Your task to perform on an android device: Empty the shopping cart on costco.com. Add duracell triple a to the cart on costco.com, then select checkout. Image 0: 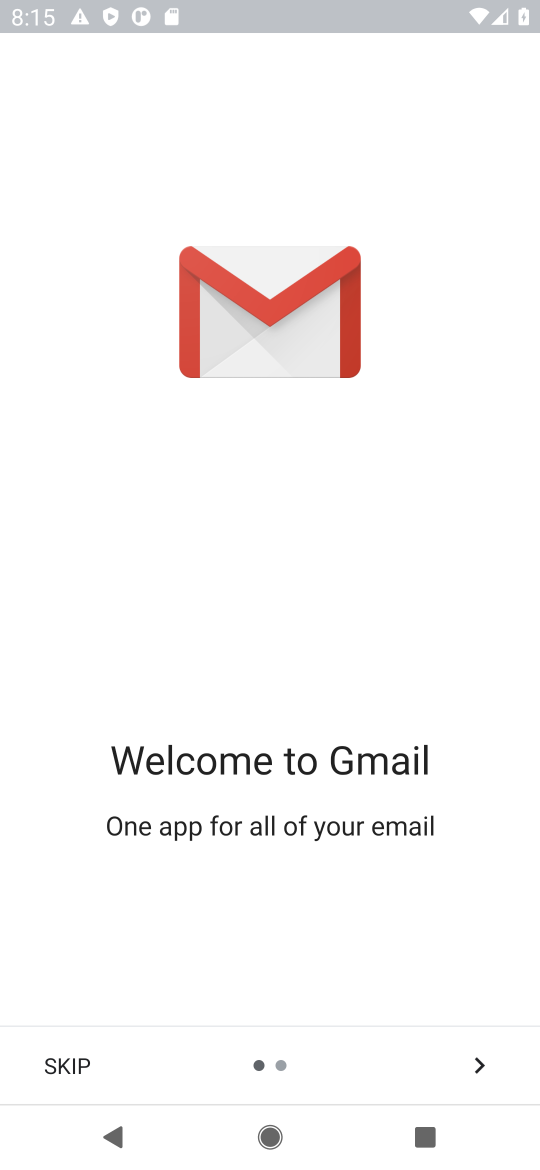
Step 0: press home button
Your task to perform on an android device: Empty the shopping cart on costco.com. Add duracell triple a to the cart on costco.com, then select checkout. Image 1: 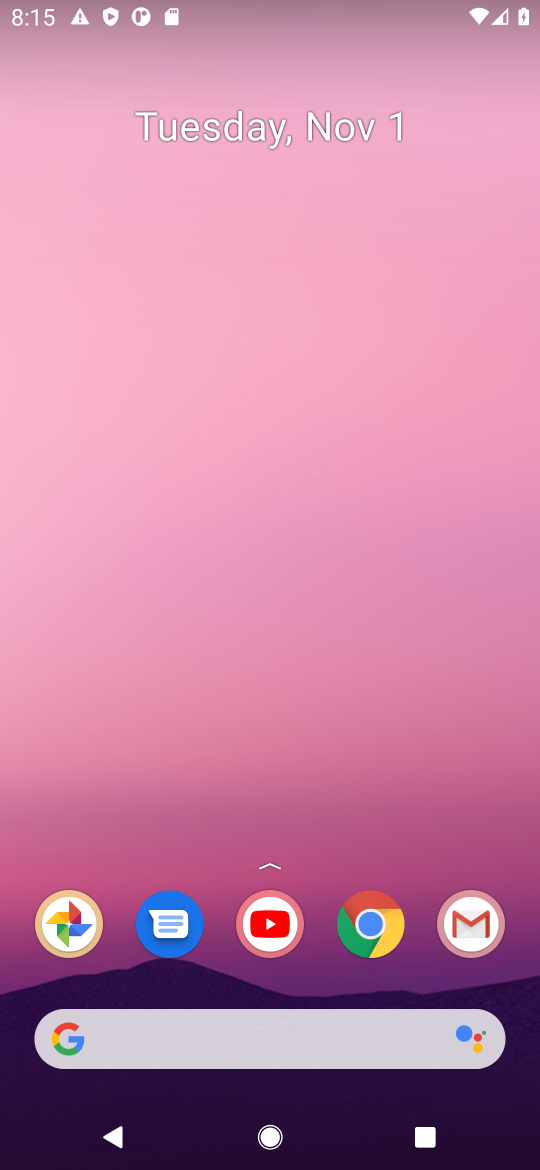
Step 1: click (101, 1035)
Your task to perform on an android device: Empty the shopping cart on costco.com. Add duracell triple a to the cart on costco.com, then select checkout. Image 2: 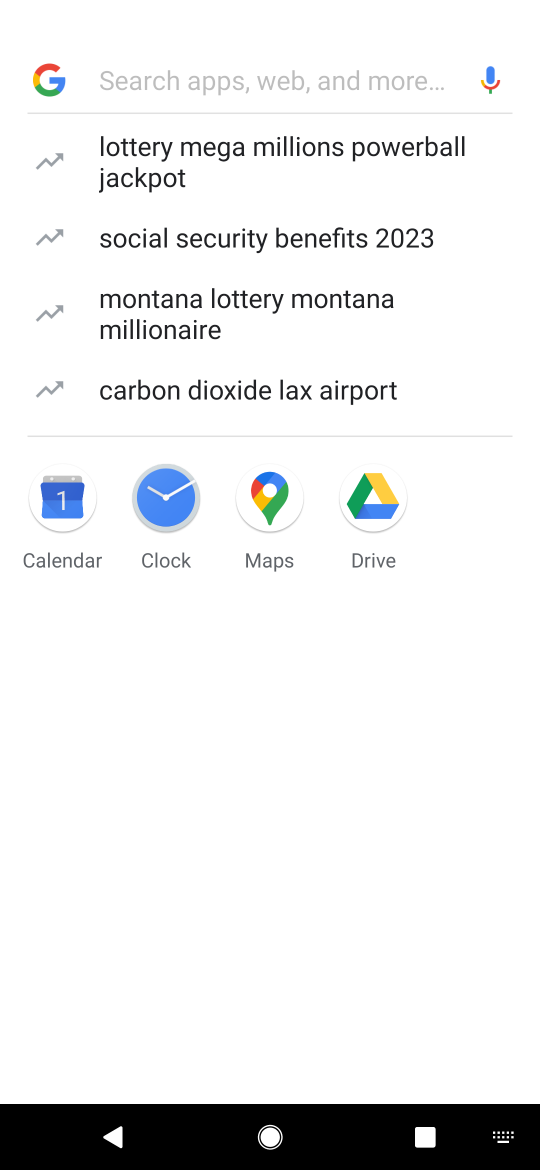
Step 2: type "costco.com"
Your task to perform on an android device: Empty the shopping cart on costco.com. Add duracell triple a to the cart on costco.com, then select checkout. Image 3: 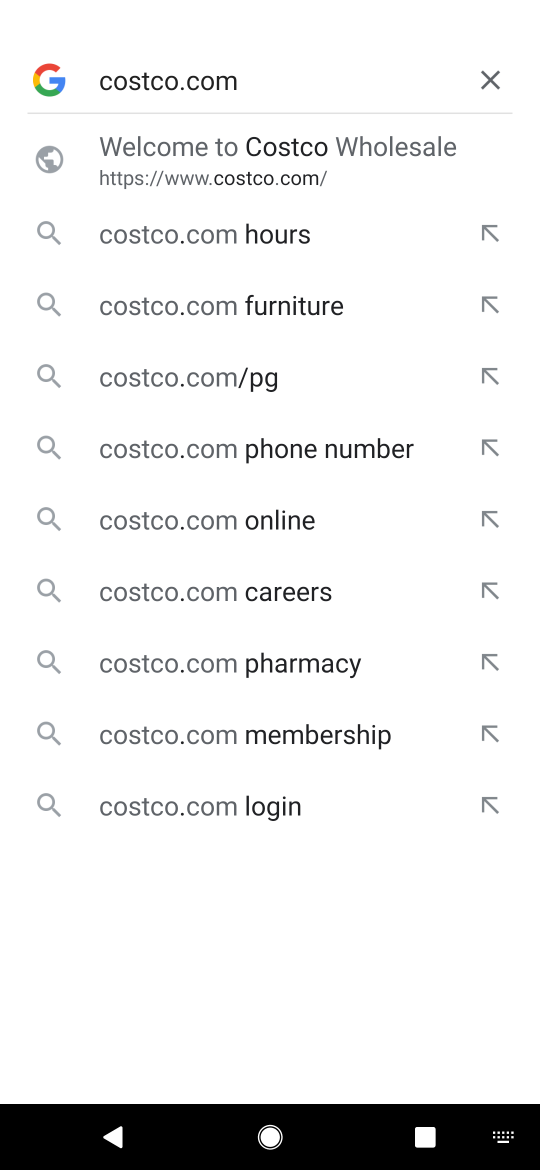
Step 3: press enter
Your task to perform on an android device: Empty the shopping cart on costco.com. Add duracell triple a to the cart on costco.com, then select checkout. Image 4: 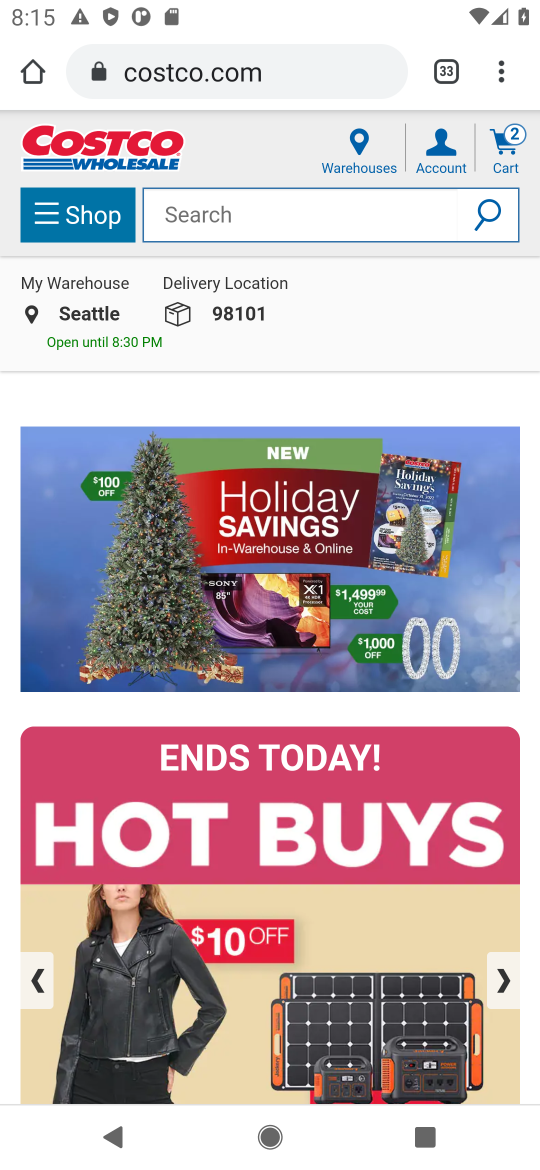
Step 4: click (505, 134)
Your task to perform on an android device: Empty the shopping cart on costco.com. Add duracell triple a to the cart on costco.com, then select checkout. Image 5: 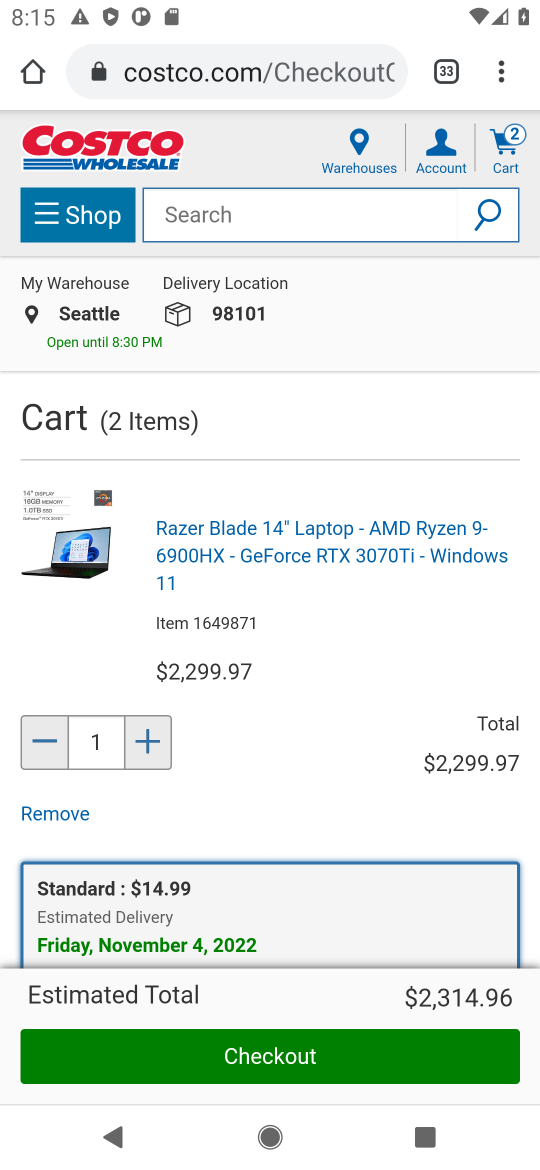
Step 5: click (45, 815)
Your task to perform on an android device: Empty the shopping cart on costco.com. Add duracell triple a to the cart on costco.com, then select checkout. Image 6: 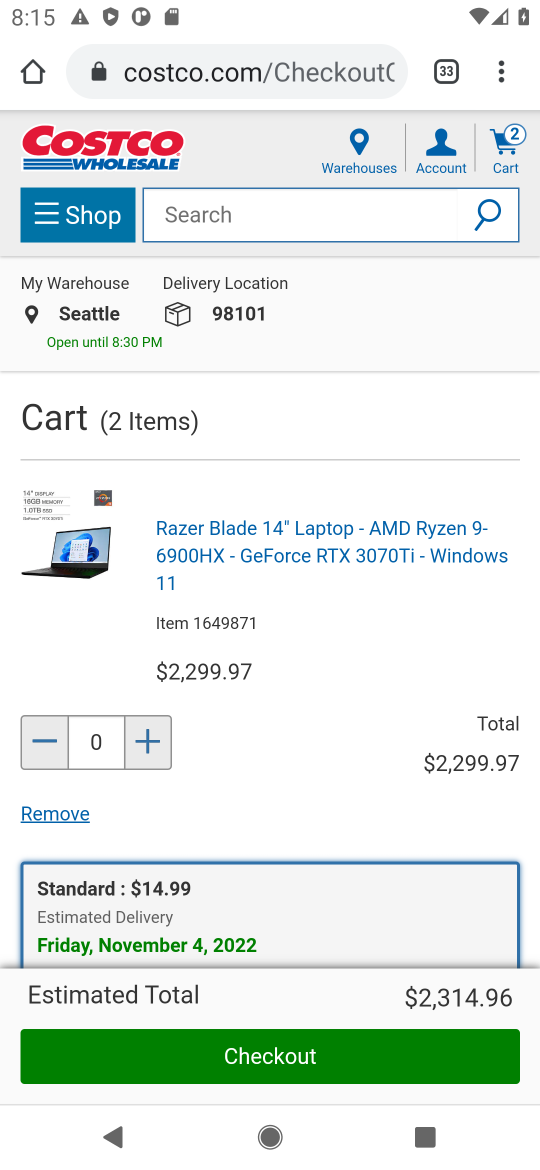
Step 6: click (45, 815)
Your task to perform on an android device: Empty the shopping cart on costco.com. Add duracell triple a to the cart on costco.com, then select checkout. Image 7: 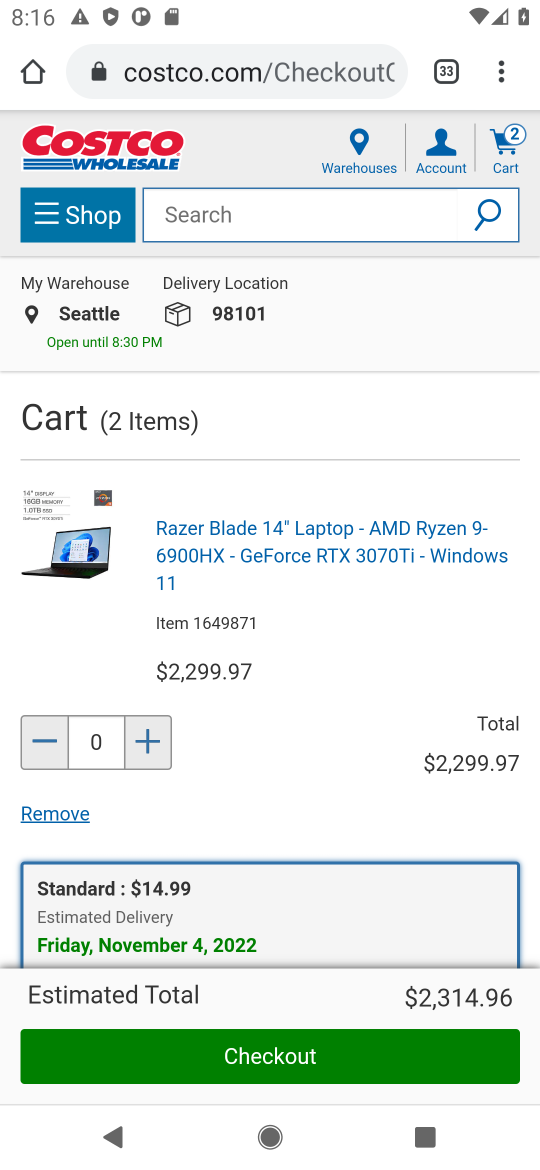
Step 7: drag from (348, 754) to (379, 339)
Your task to perform on an android device: Empty the shopping cart on costco.com. Add duracell triple a to the cart on costco.com, then select checkout. Image 8: 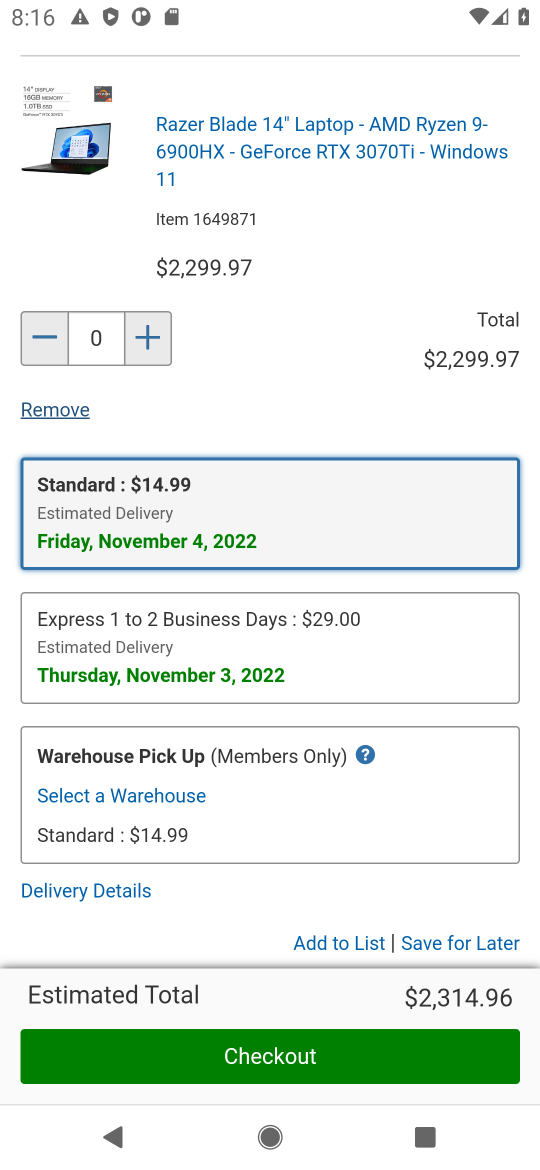
Step 8: drag from (235, 804) to (319, 354)
Your task to perform on an android device: Empty the shopping cart on costco.com. Add duracell triple a to the cart on costco.com, then select checkout. Image 9: 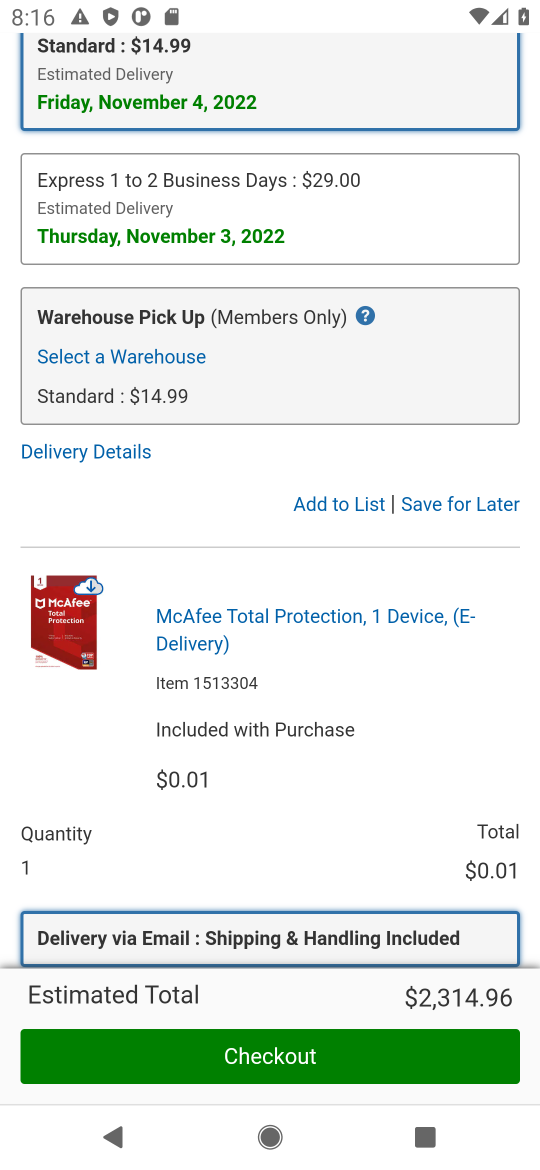
Step 9: drag from (230, 832) to (286, 361)
Your task to perform on an android device: Empty the shopping cart on costco.com. Add duracell triple a to the cart on costco.com, then select checkout. Image 10: 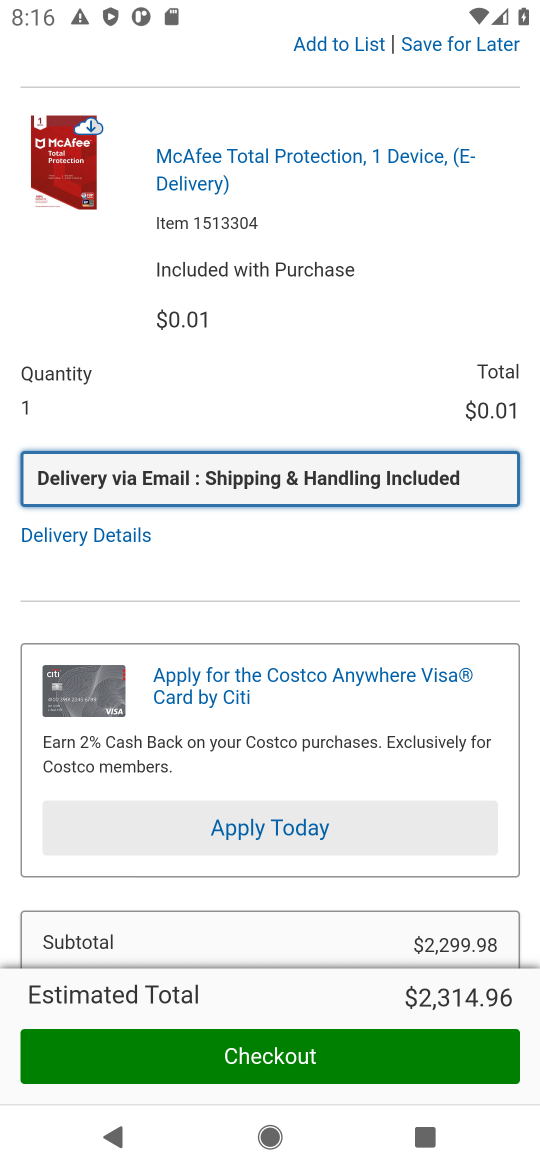
Step 10: drag from (170, 828) to (285, 304)
Your task to perform on an android device: Empty the shopping cart on costco.com. Add duracell triple a to the cart on costco.com, then select checkout. Image 11: 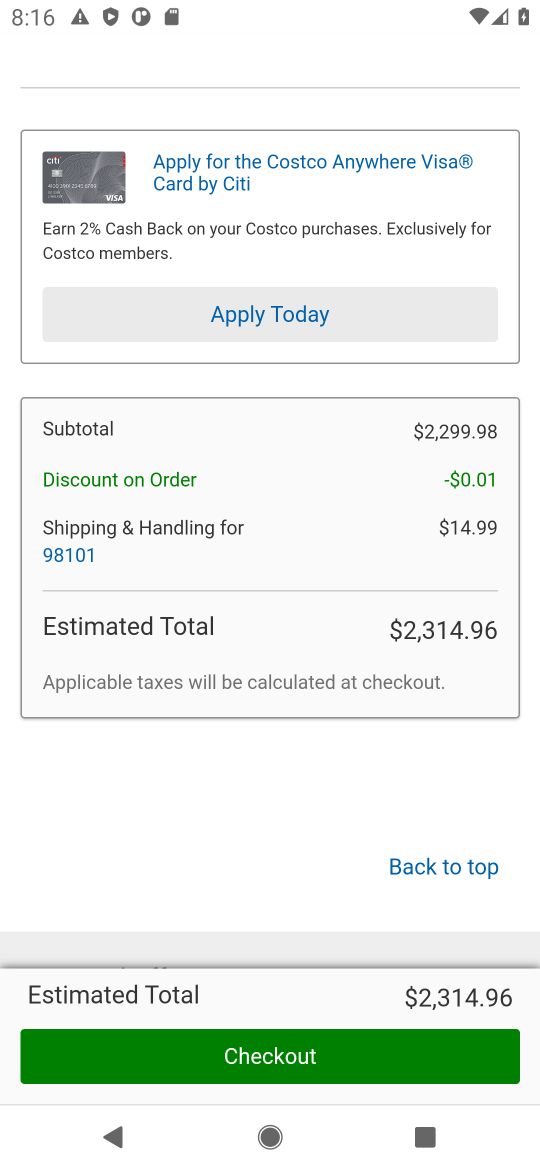
Step 11: drag from (265, 847) to (355, 328)
Your task to perform on an android device: Empty the shopping cart on costco.com. Add duracell triple a to the cart on costco.com, then select checkout. Image 12: 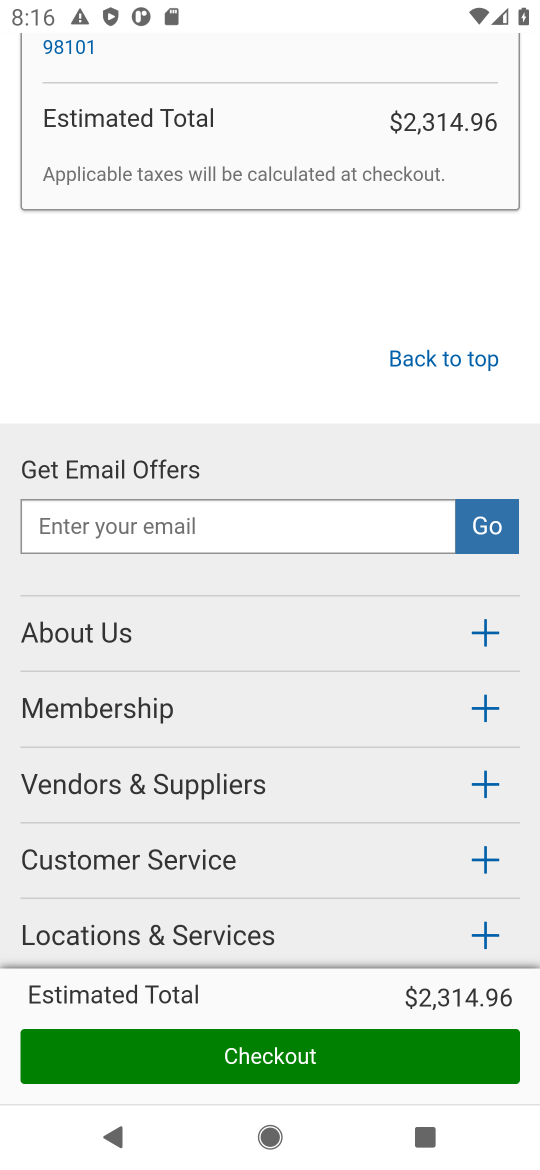
Step 12: drag from (382, 231) to (354, 815)
Your task to perform on an android device: Empty the shopping cart on costco.com. Add duracell triple a to the cart on costco.com, then select checkout. Image 13: 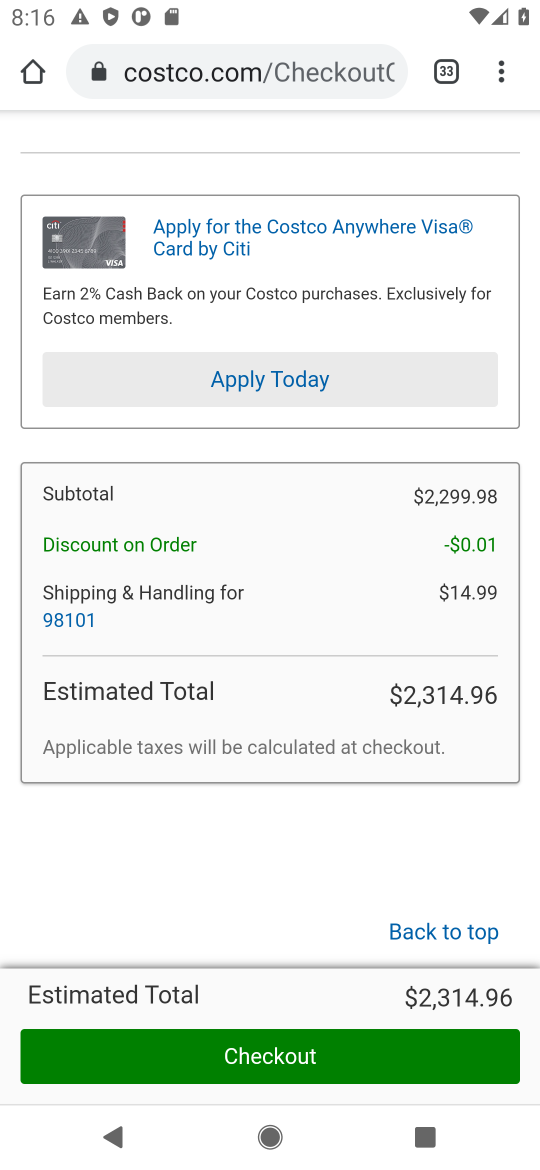
Step 13: drag from (344, 189) to (355, 707)
Your task to perform on an android device: Empty the shopping cart on costco.com. Add duracell triple a to the cart on costco.com, then select checkout. Image 14: 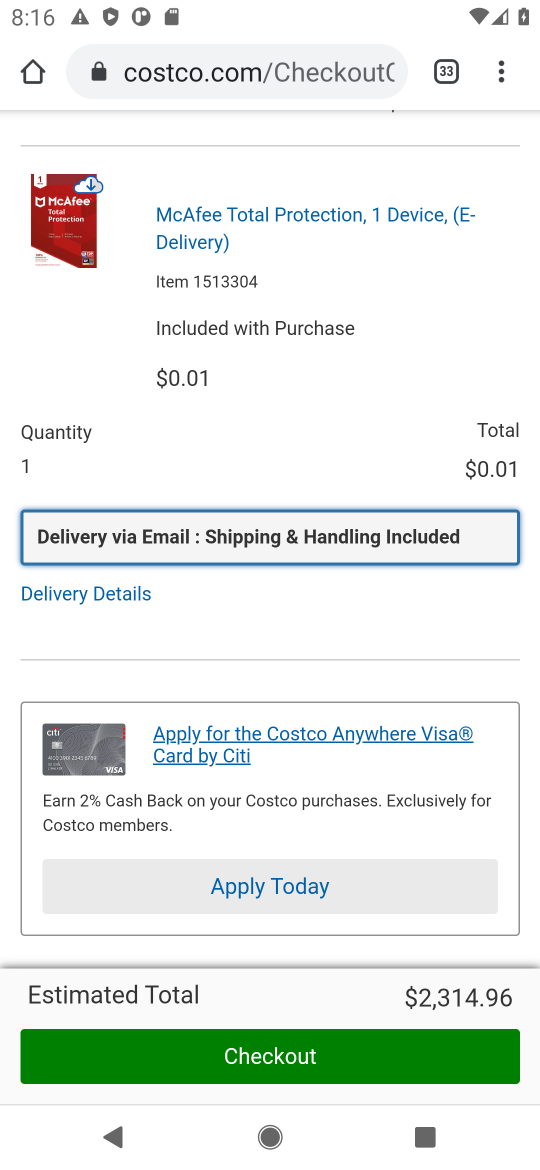
Step 14: drag from (383, 346) to (369, 751)
Your task to perform on an android device: Empty the shopping cart on costco.com. Add duracell triple a to the cart on costco.com, then select checkout. Image 15: 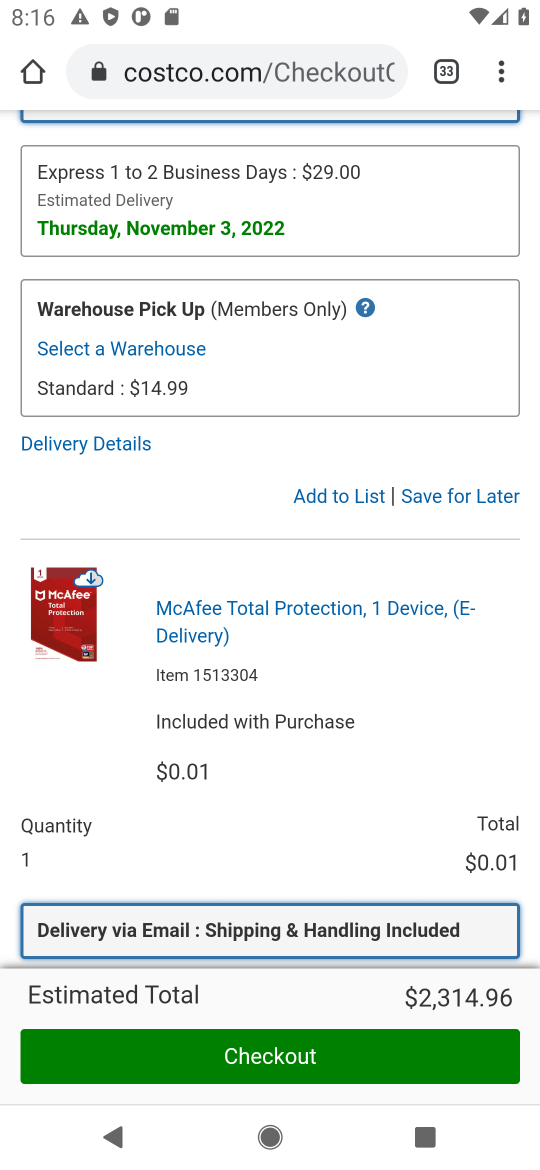
Step 15: drag from (275, 236) to (270, 679)
Your task to perform on an android device: Empty the shopping cart on costco.com. Add duracell triple a to the cart on costco.com, then select checkout. Image 16: 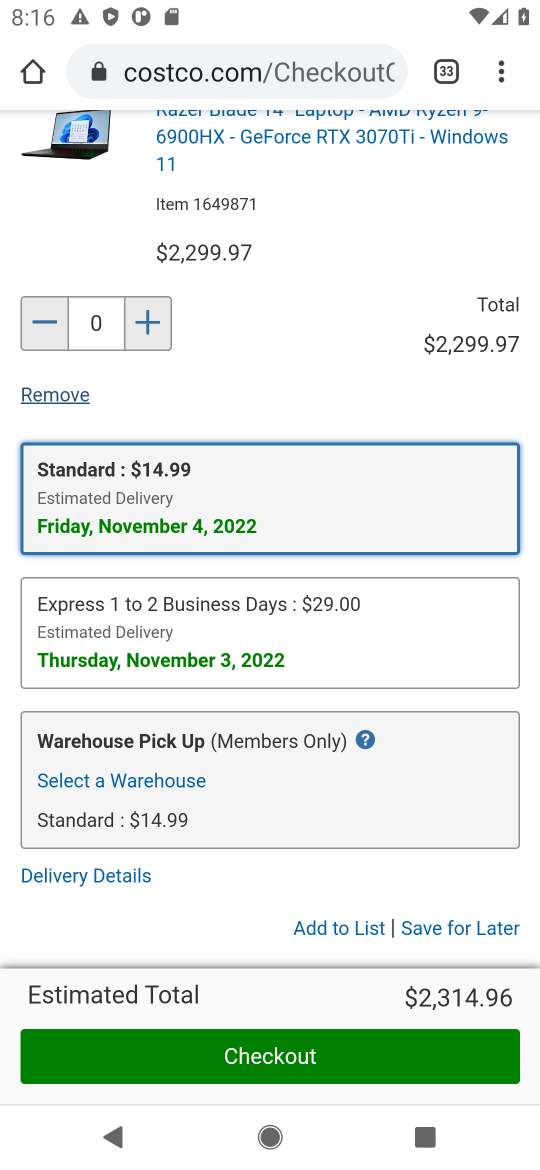
Step 16: drag from (225, 388) to (228, 760)
Your task to perform on an android device: Empty the shopping cart on costco.com. Add duracell triple a to the cart on costco.com, then select checkout. Image 17: 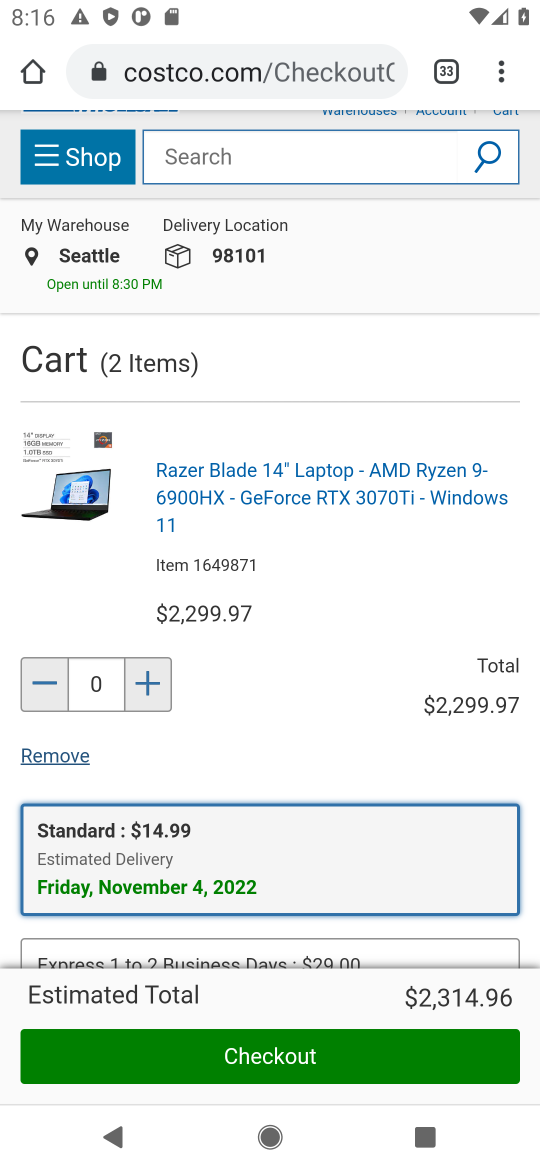
Step 17: click (40, 754)
Your task to perform on an android device: Empty the shopping cart on costco.com. Add duracell triple a to the cart on costco.com, then select checkout. Image 18: 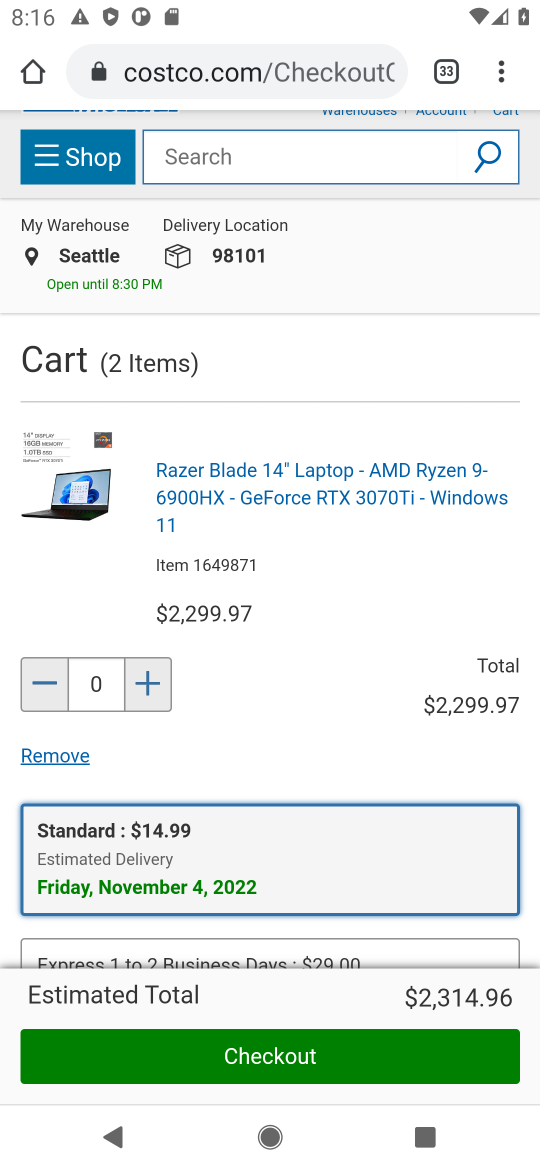
Step 18: task complete